Your task to perform on an android device: toggle data saver in the chrome app Image 0: 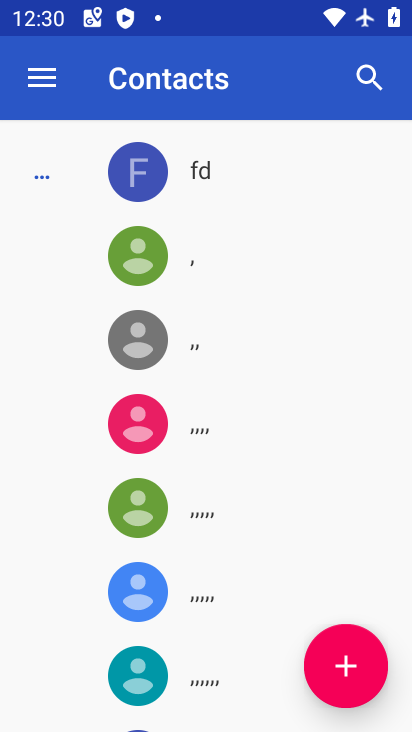
Step 0: press home button
Your task to perform on an android device: toggle data saver in the chrome app Image 1: 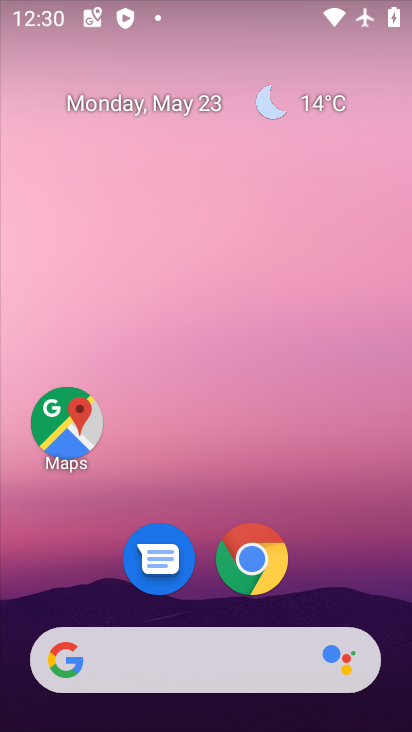
Step 1: click (257, 563)
Your task to perform on an android device: toggle data saver in the chrome app Image 2: 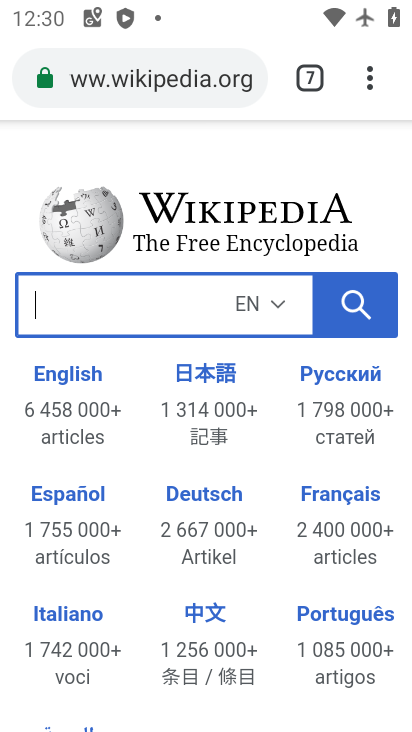
Step 2: click (372, 75)
Your task to perform on an android device: toggle data saver in the chrome app Image 3: 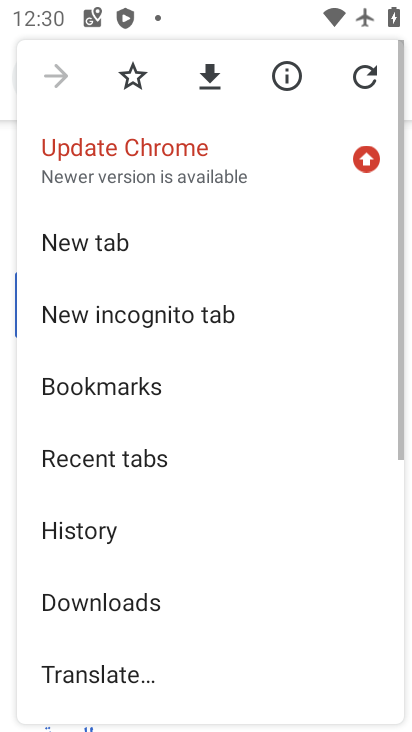
Step 3: drag from (217, 603) to (206, 168)
Your task to perform on an android device: toggle data saver in the chrome app Image 4: 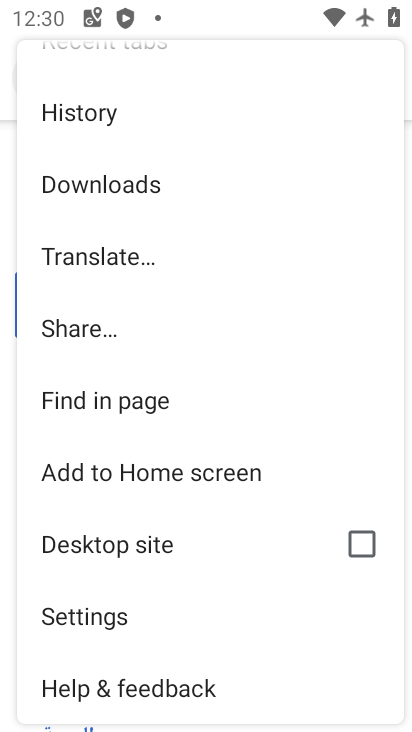
Step 4: click (104, 616)
Your task to perform on an android device: toggle data saver in the chrome app Image 5: 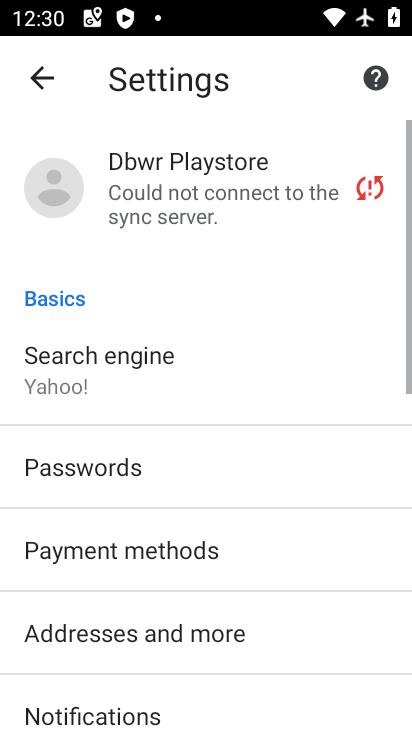
Step 5: drag from (182, 595) to (180, 78)
Your task to perform on an android device: toggle data saver in the chrome app Image 6: 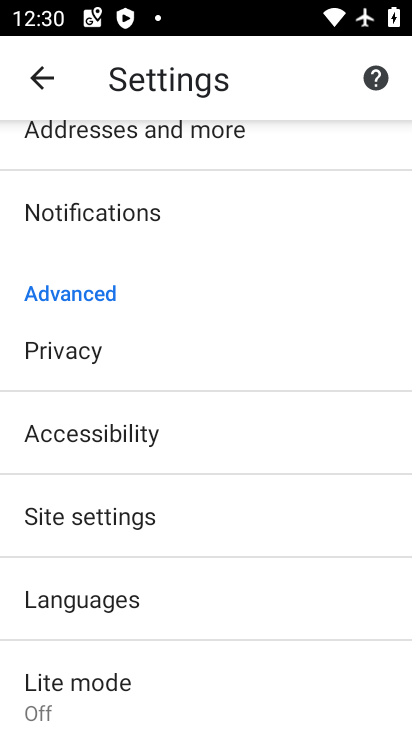
Step 6: click (94, 682)
Your task to perform on an android device: toggle data saver in the chrome app Image 7: 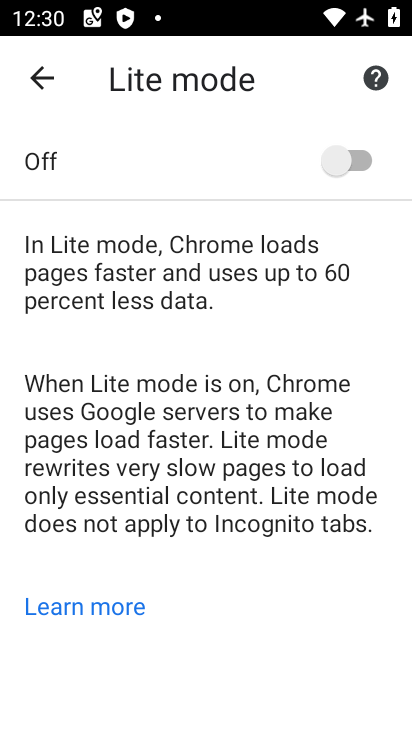
Step 7: click (341, 165)
Your task to perform on an android device: toggle data saver in the chrome app Image 8: 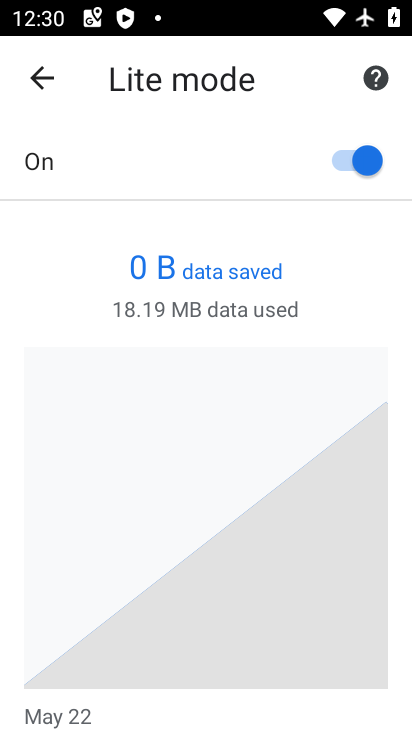
Step 8: task complete